Your task to perform on an android device: check battery use Image 0: 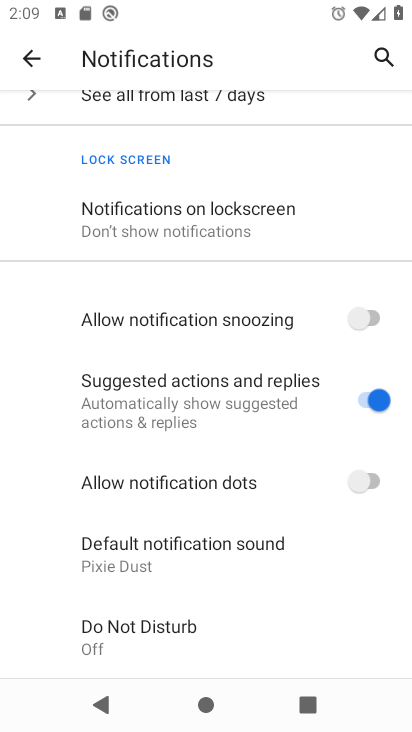
Step 0: press home button
Your task to perform on an android device: check battery use Image 1: 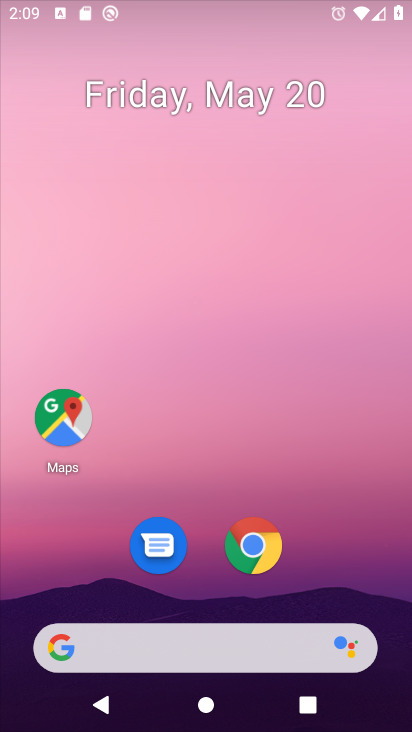
Step 1: drag from (297, 620) to (261, 96)
Your task to perform on an android device: check battery use Image 2: 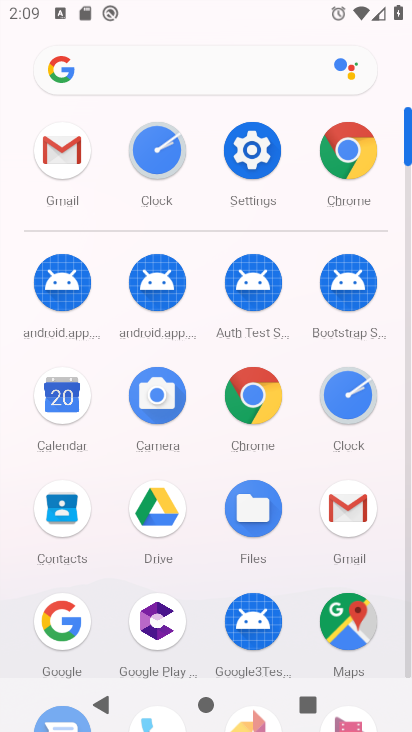
Step 2: click (246, 169)
Your task to perform on an android device: check battery use Image 3: 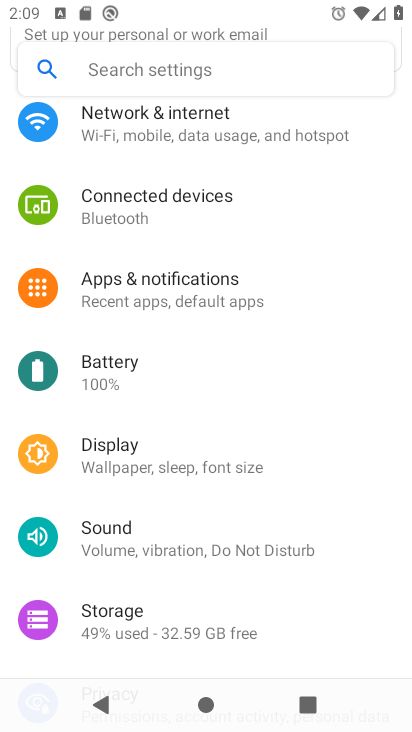
Step 3: click (160, 367)
Your task to perform on an android device: check battery use Image 4: 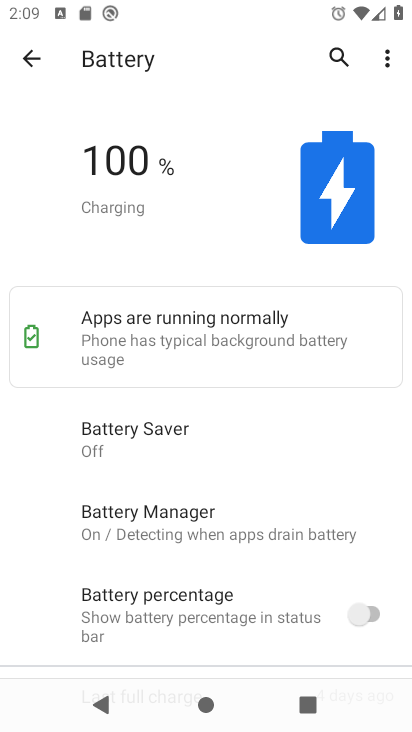
Step 4: task complete